Your task to perform on an android device: Show me popular games on the Play Store Image 0: 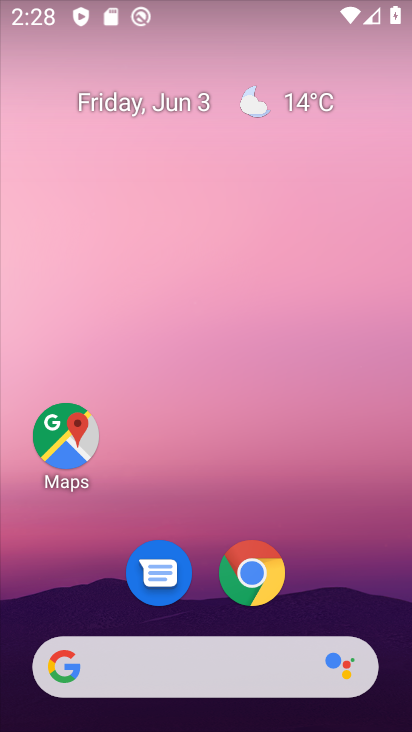
Step 0: drag from (236, 646) to (292, 120)
Your task to perform on an android device: Show me popular games on the Play Store Image 1: 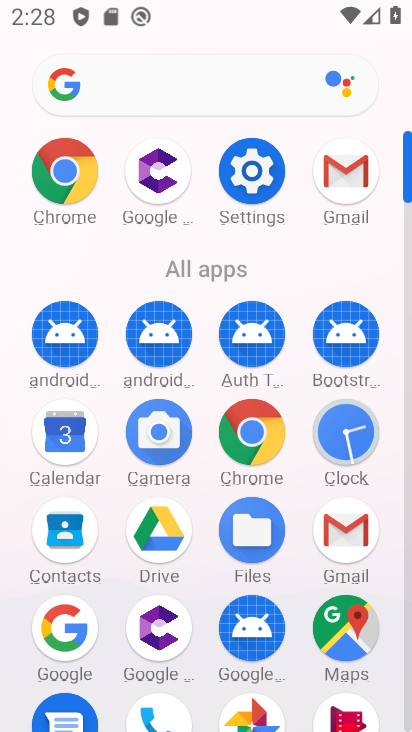
Step 1: drag from (195, 682) to (219, 332)
Your task to perform on an android device: Show me popular games on the Play Store Image 2: 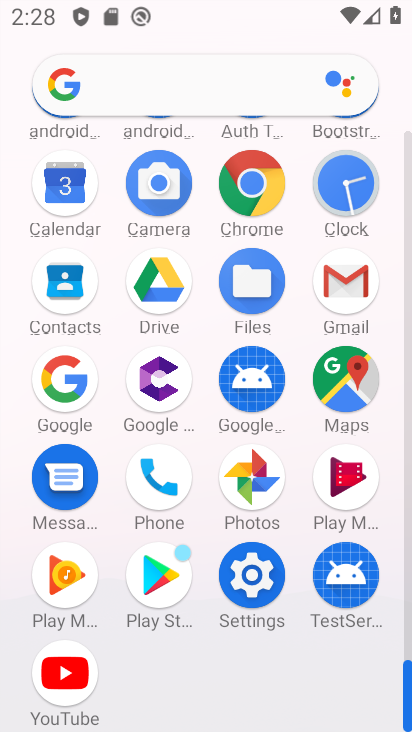
Step 2: click (162, 588)
Your task to perform on an android device: Show me popular games on the Play Store Image 3: 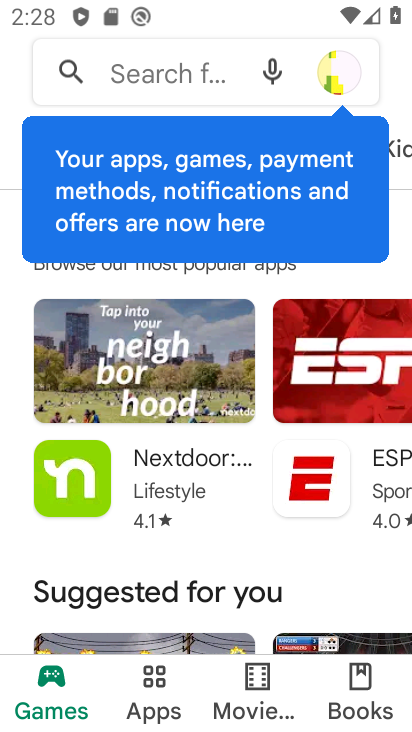
Step 3: drag from (285, 595) to (336, 190)
Your task to perform on an android device: Show me popular games on the Play Store Image 4: 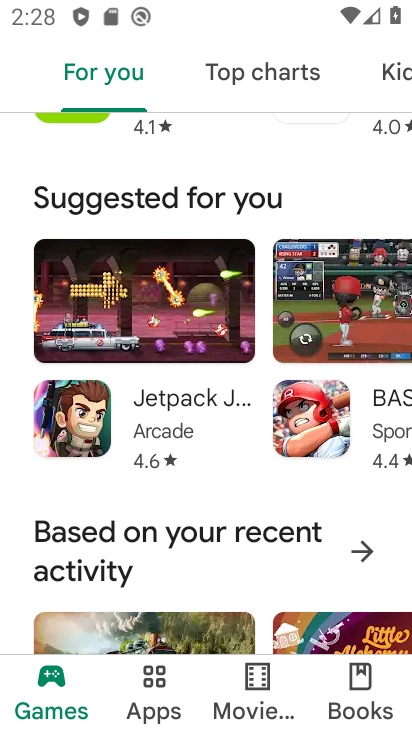
Step 4: drag from (310, 579) to (289, 166)
Your task to perform on an android device: Show me popular games on the Play Store Image 5: 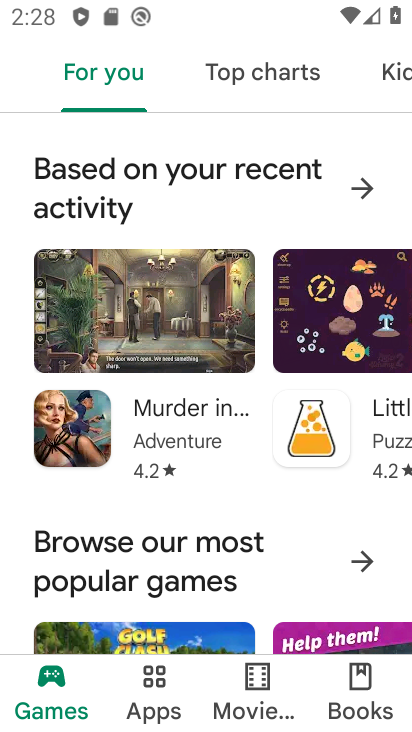
Step 5: click (360, 555)
Your task to perform on an android device: Show me popular games on the Play Store Image 6: 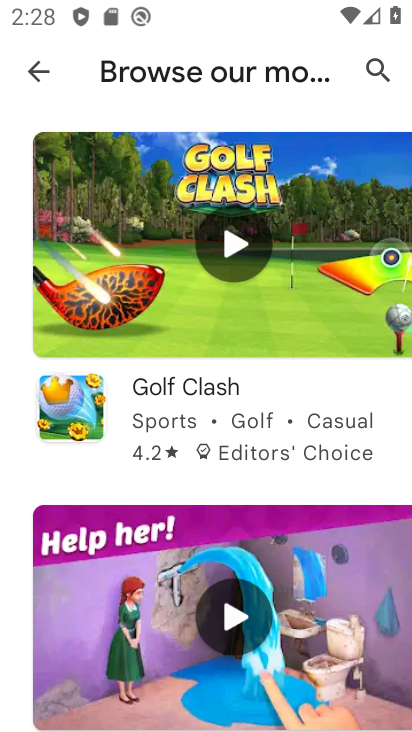
Step 6: task complete